Your task to perform on an android device: Set the phone to "Do not disturb". Image 0: 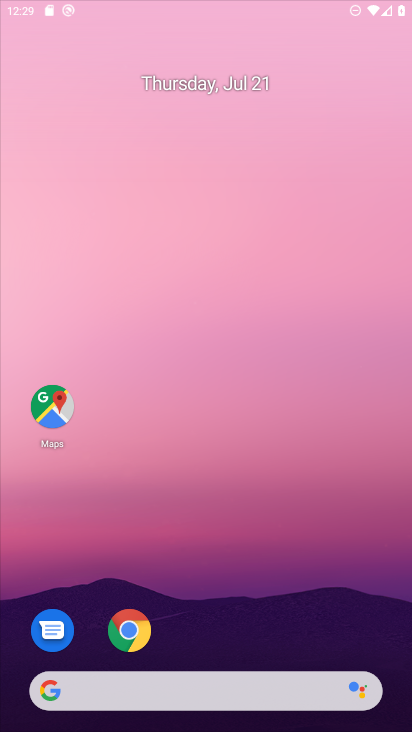
Step 0: click (353, 149)
Your task to perform on an android device: Set the phone to "Do not disturb". Image 1: 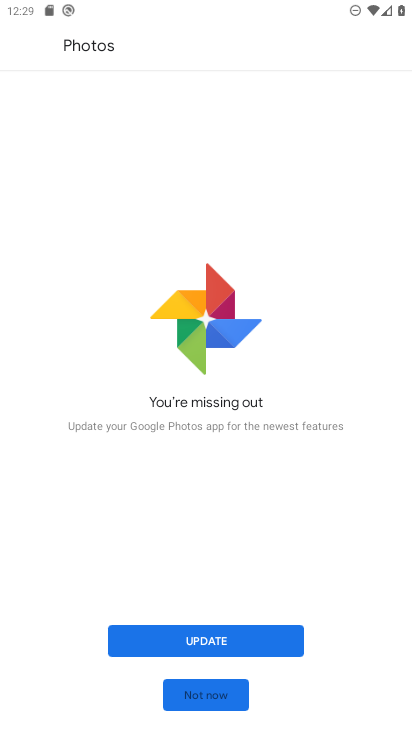
Step 1: press home button
Your task to perform on an android device: Set the phone to "Do not disturb". Image 2: 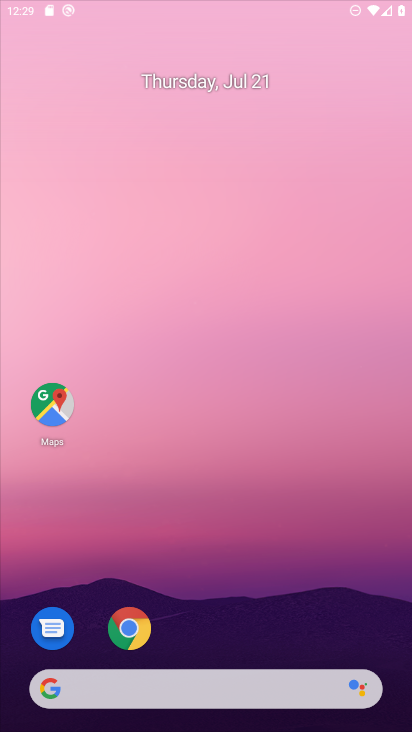
Step 2: drag from (249, 453) to (285, 223)
Your task to perform on an android device: Set the phone to "Do not disturb". Image 3: 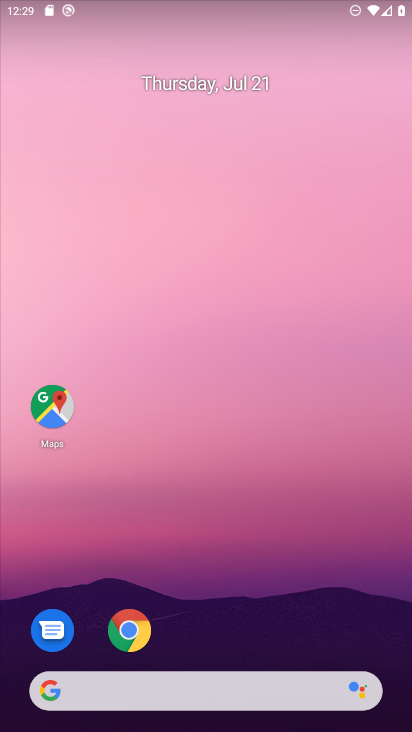
Step 3: drag from (213, 645) to (325, 108)
Your task to perform on an android device: Set the phone to "Do not disturb". Image 4: 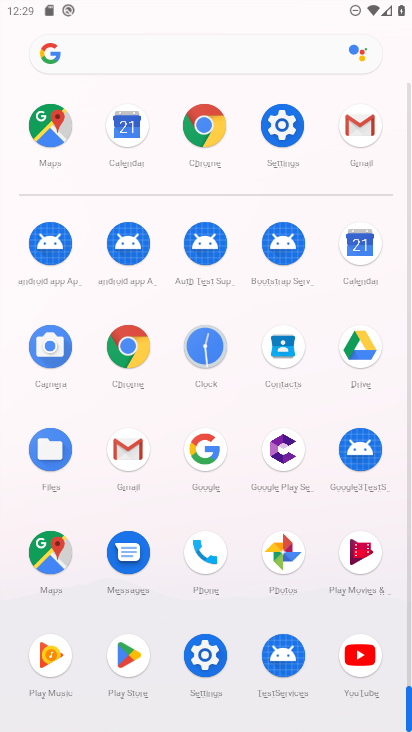
Step 4: click (288, 104)
Your task to perform on an android device: Set the phone to "Do not disturb". Image 5: 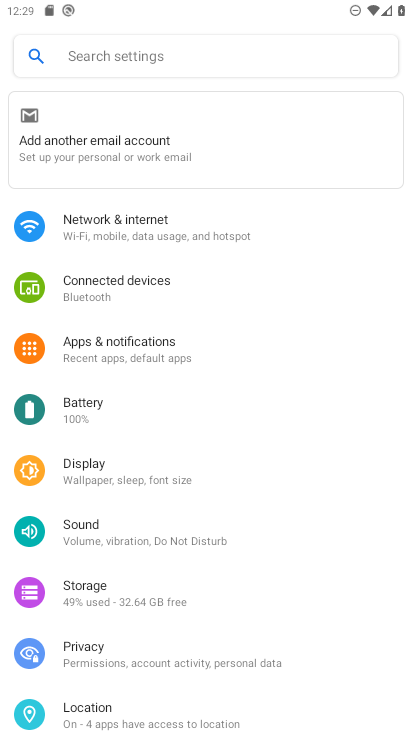
Step 5: click (136, 347)
Your task to perform on an android device: Set the phone to "Do not disturb". Image 6: 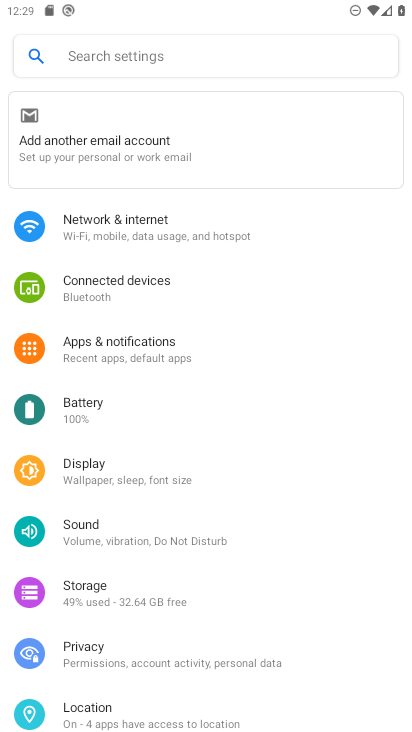
Step 6: click (136, 347)
Your task to perform on an android device: Set the phone to "Do not disturb". Image 7: 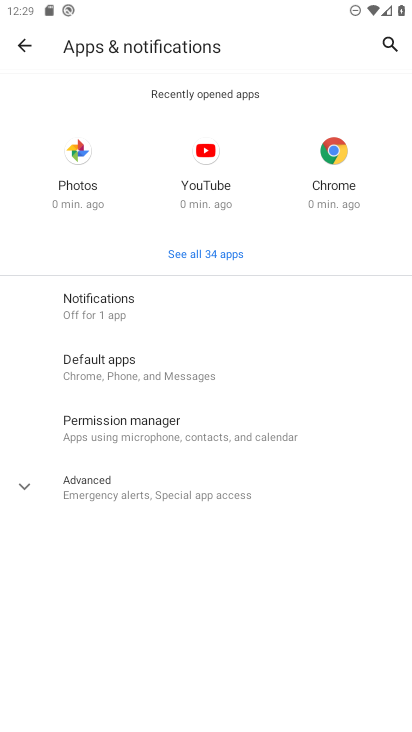
Step 7: click (140, 300)
Your task to perform on an android device: Set the phone to "Do not disturb". Image 8: 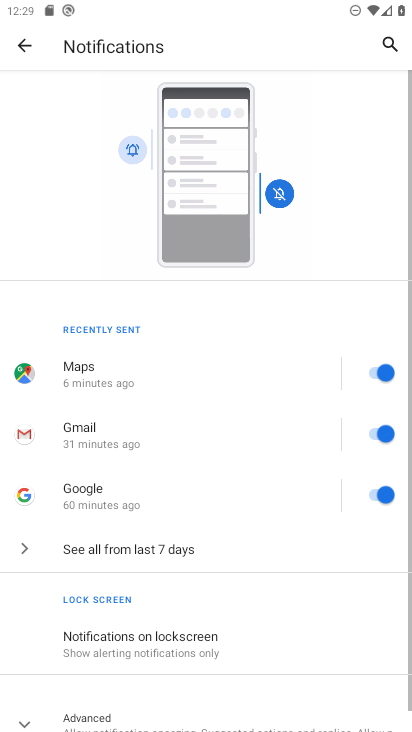
Step 8: drag from (212, 534) to (395, 2)
Your task to perform on an android device: Set the phone to "Do not disturb". Image 9: 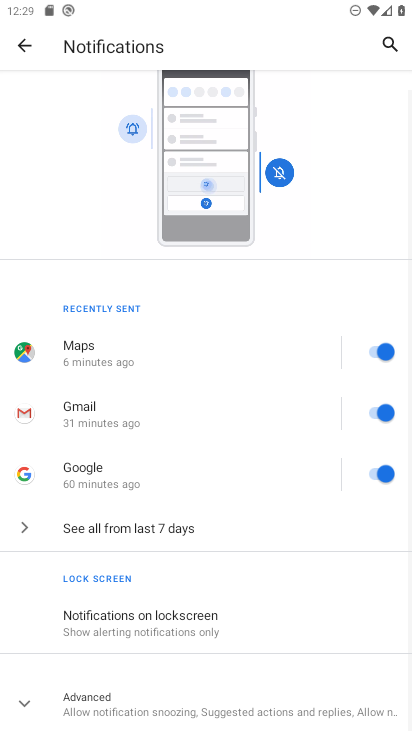
Step 9: click (101, 692)
Your task to perform on an android device: Set the phone to "Do not disturb". Image 10: 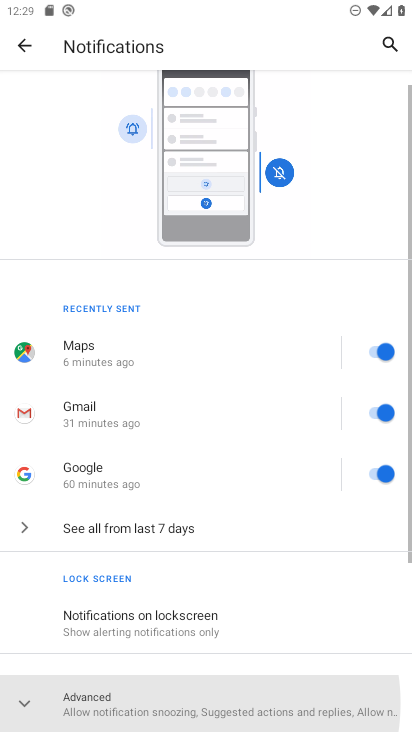
Step 10: drag from (206, 608) to (336, 43)
Your task to perform on an android device: Set the phone to "Do not disturb". Image 11: 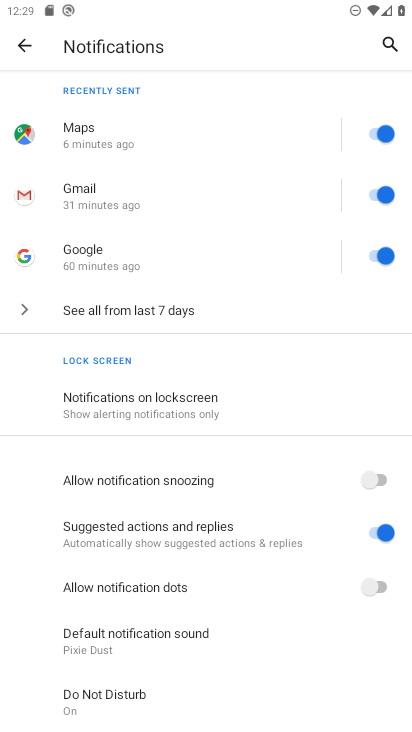
Step 11: click (145, 705)
Your task to perform on an android device: Set the phone to "Do not disturb". Image 12: 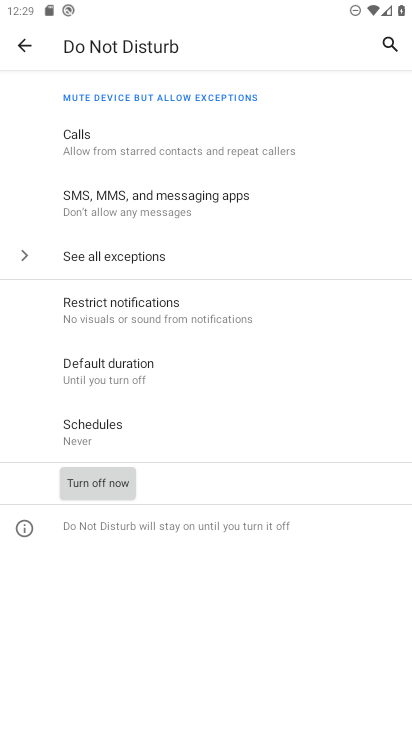
Step 12: click (79, 484)
Your task to perform on an android device: Set the phone to "Do not disturb". Image 13: 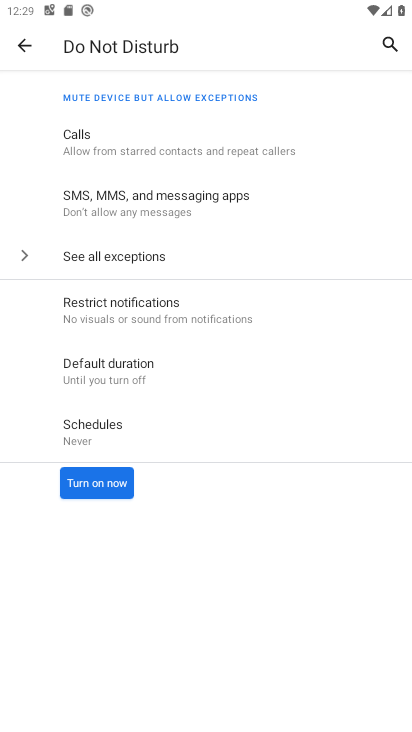
Step 13: task complete